Your task to perform on an android device: add a label to a message in the gmail app Image 0: 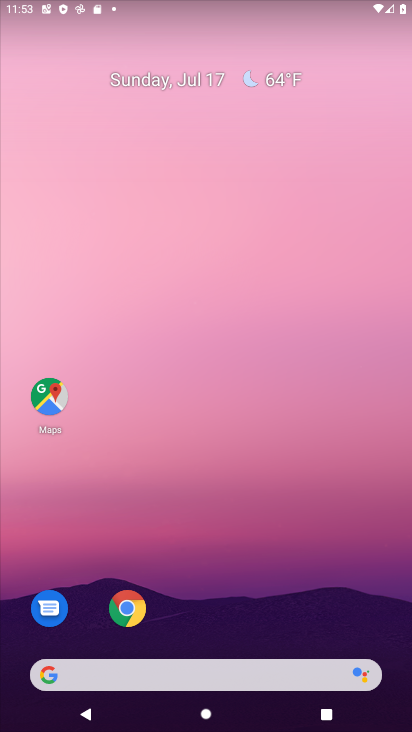
Step 0: drag from (330, 581) to (185, 166)
Your task to perform on an android device: add a label to a message in the gmail app Image 1: 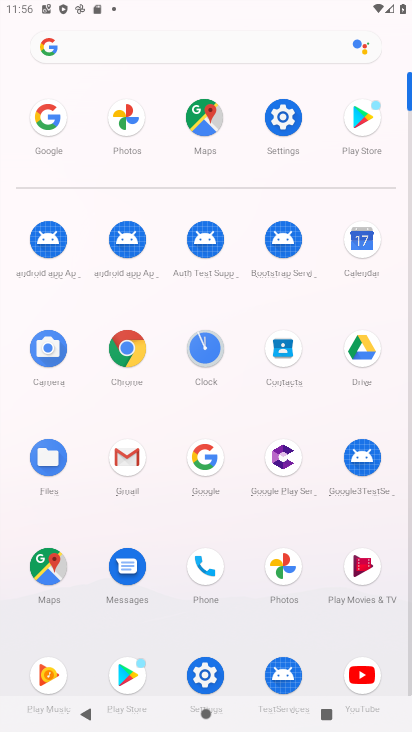
Step 1: click (121, 454)
Your task to perform on an android device: add a label to a message in the gmail app Image 2: 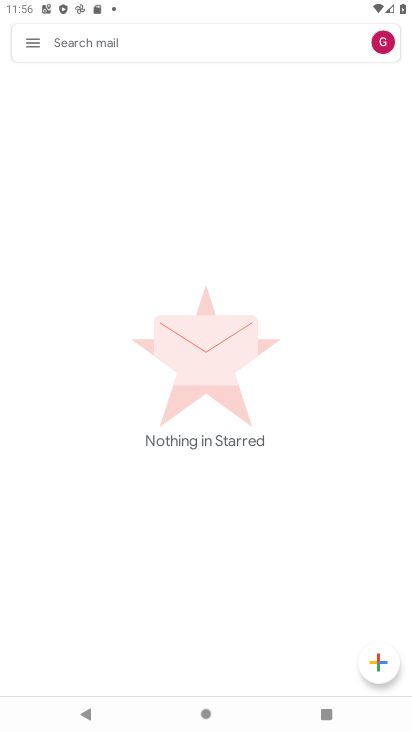
Step 2: task complete